Your task to perform on an android device: Search for panasonic triple a on bestbuy.com, select the first entry, and add it to the cart. Image 0: 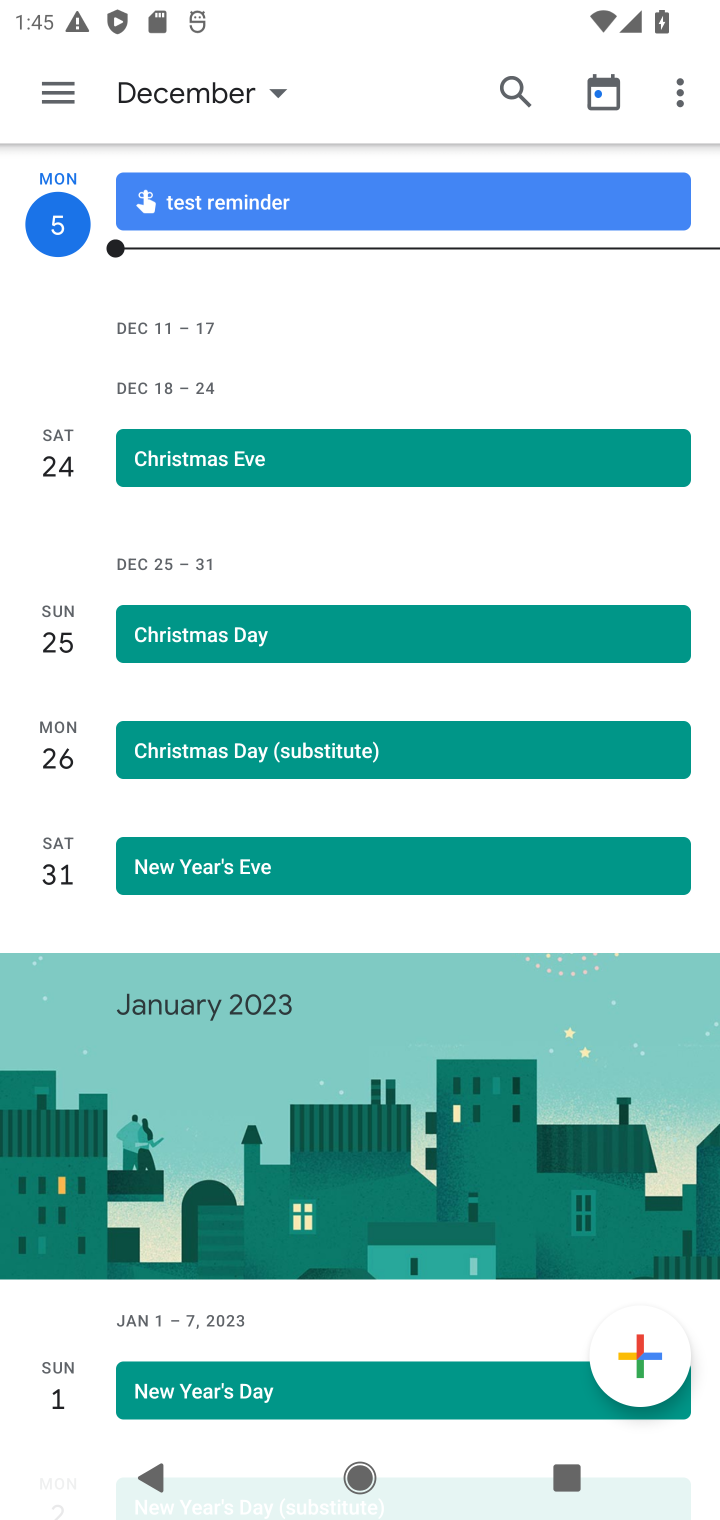
Step 0: press home button
Your task to perform on an android device: Search for panasonic triple a on bestbuy.com, select the first entry, and add it to the cart. Image 1: 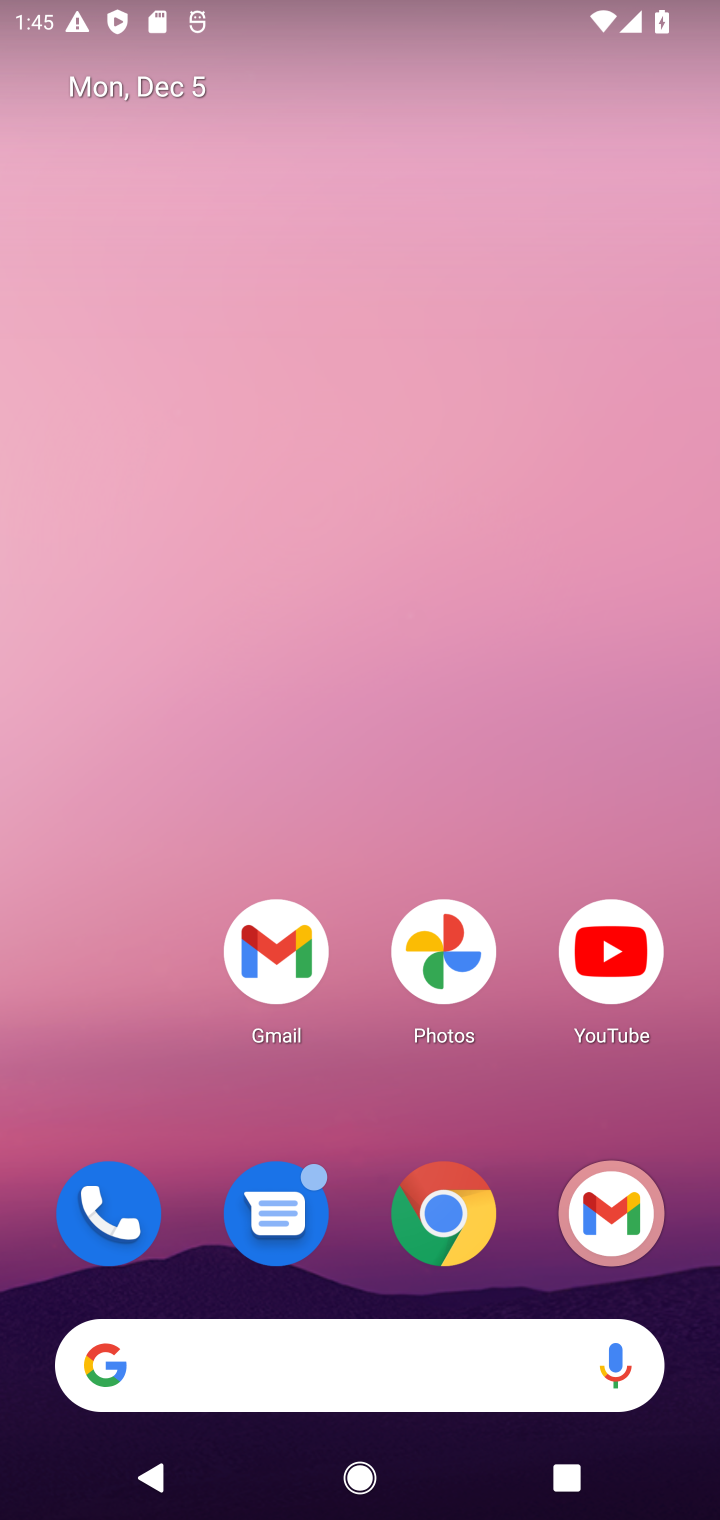
Step 1: click (438, 1215)
Your task to perform on an android device: Search for panasonic triple a on bestbuy.com, select the first entry, and add it to the cart. Image 2: 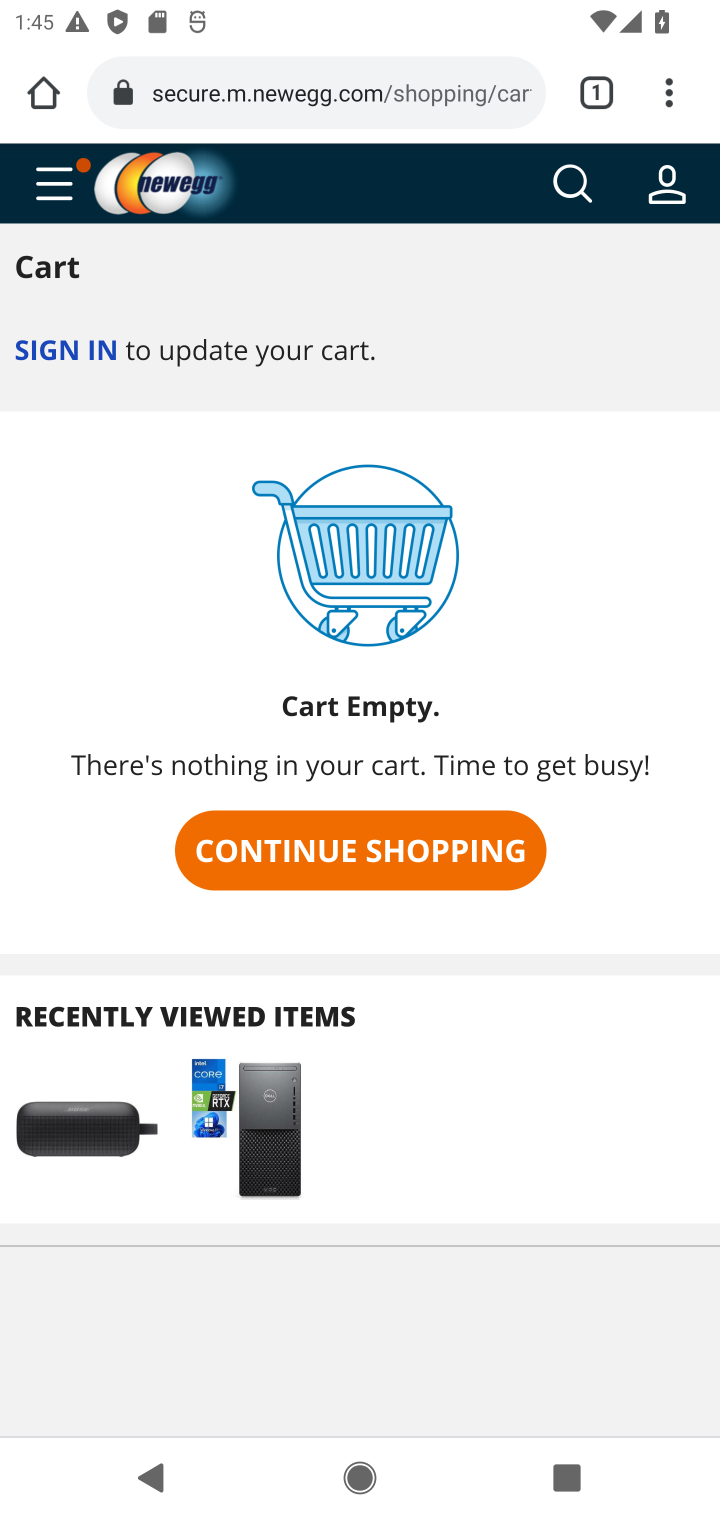
Step 2: click (296, 89)
Your task to perform on an android device: Search for panasonic triple a on bestbuy.com, select the first entry, and add it to the cart. Image 3: 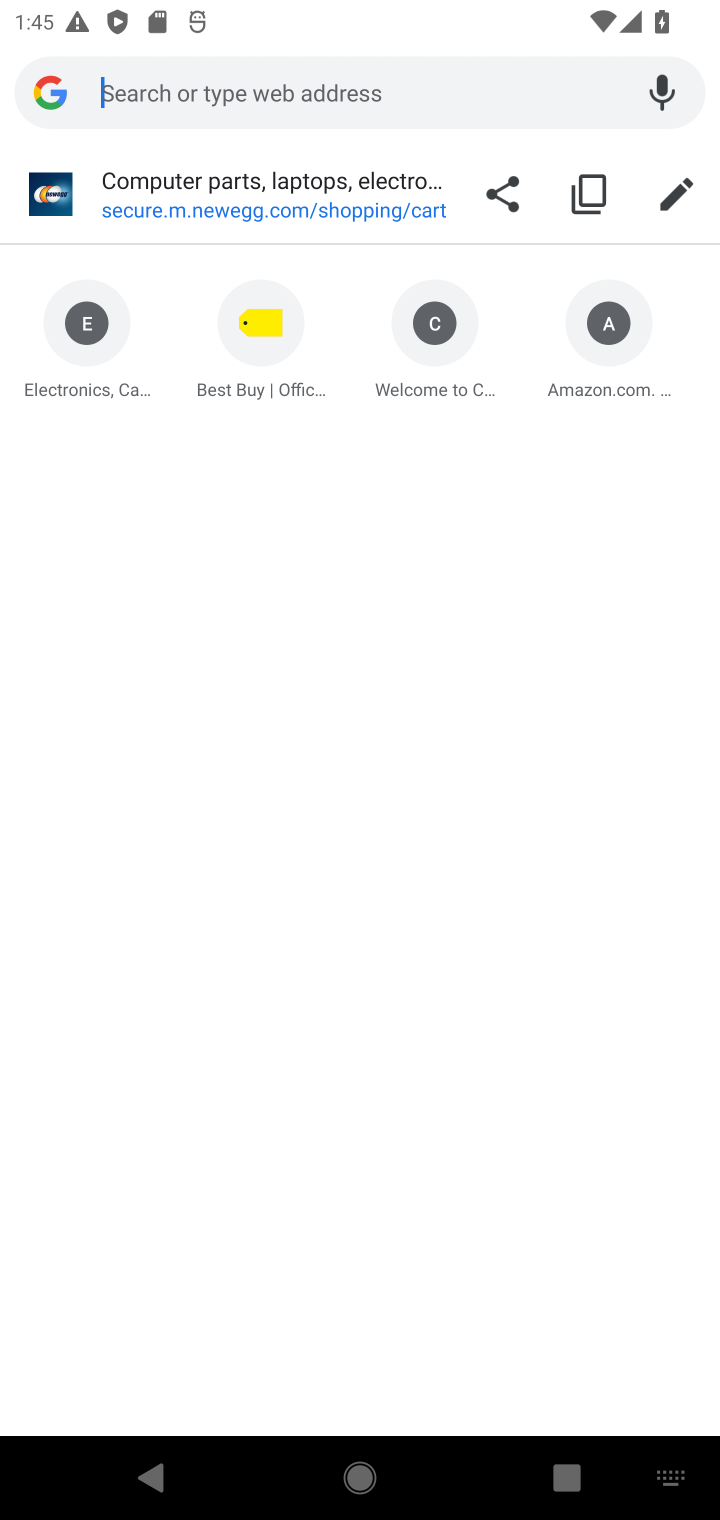
Step 3: click (247, 355)
Your task to perform on an android device: Search for panasonic triple a on bestbuy.com, select the first entry, and add it to the cart. Image 4: 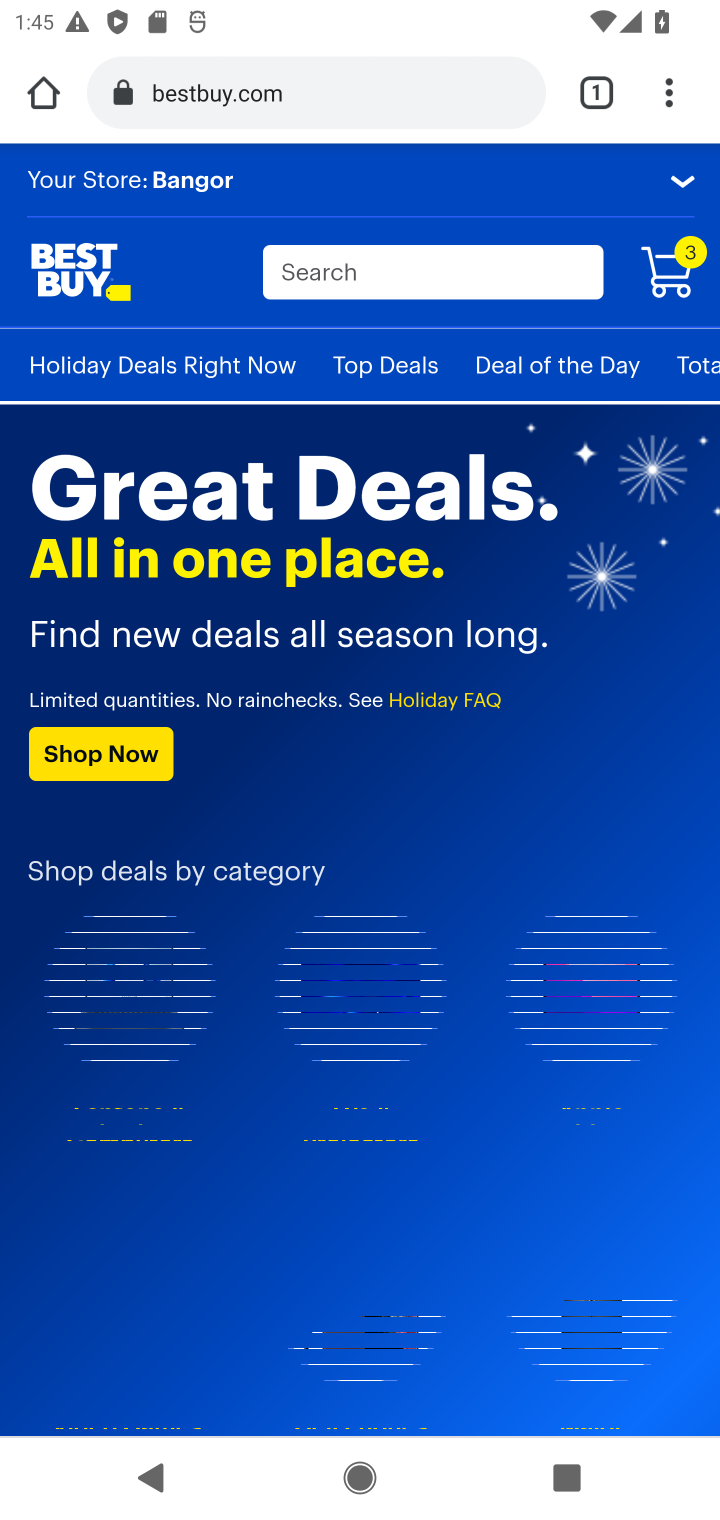
Step 4: click (380, 296)
Your task to perform on an android device: Search for panasonic triple a on bestbuy.com, select the first entry, and add it to the cart. Image 5: 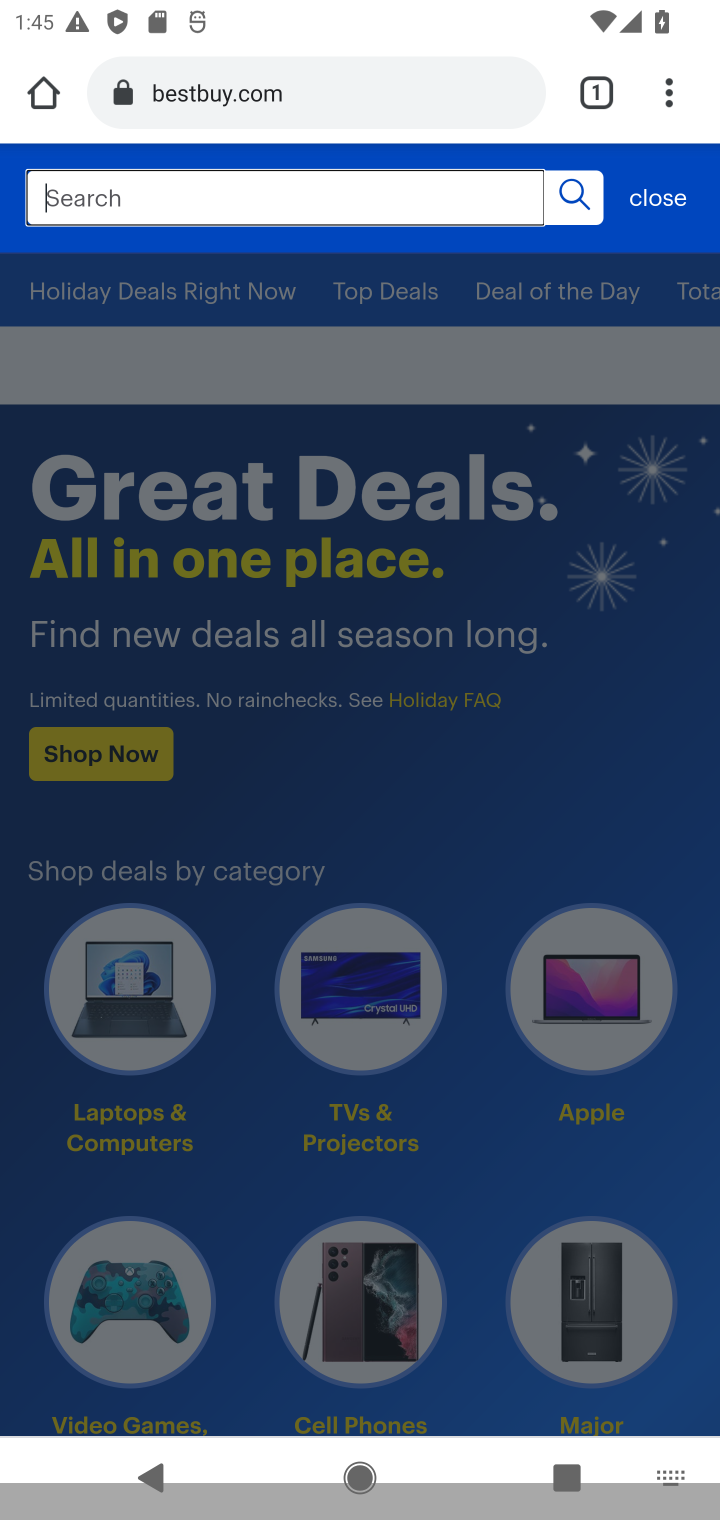
Step 5: click (380, 296)
Your task to perform on an android device: Search for panasonic triple a on bestbuy.com, select the first entry, and add it to the cart. Image 6: 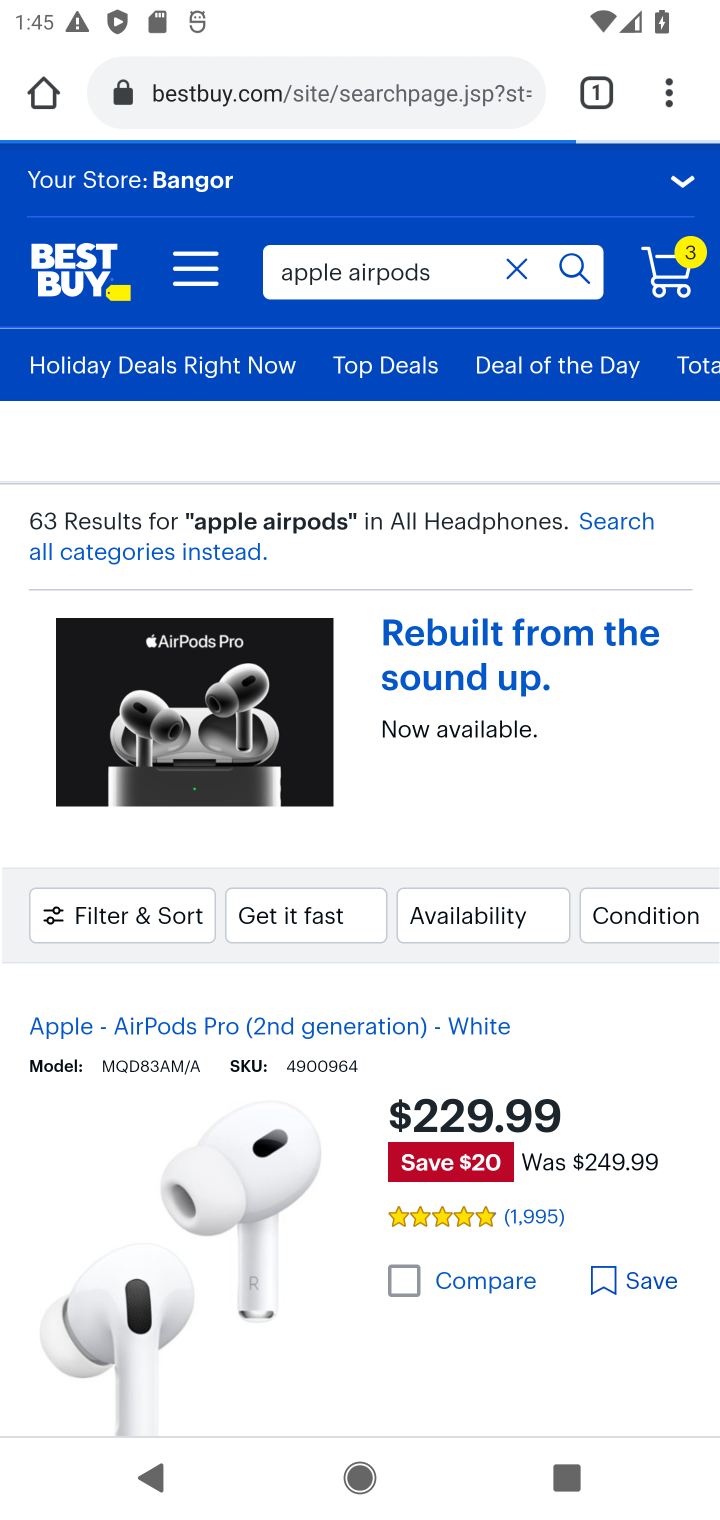
Step 6: type "panasonic triple a"
Your task to perform on an android device: Search for panasonic triple a on bestbuy.com, select the first entry, and add it to the cart. Image 7: 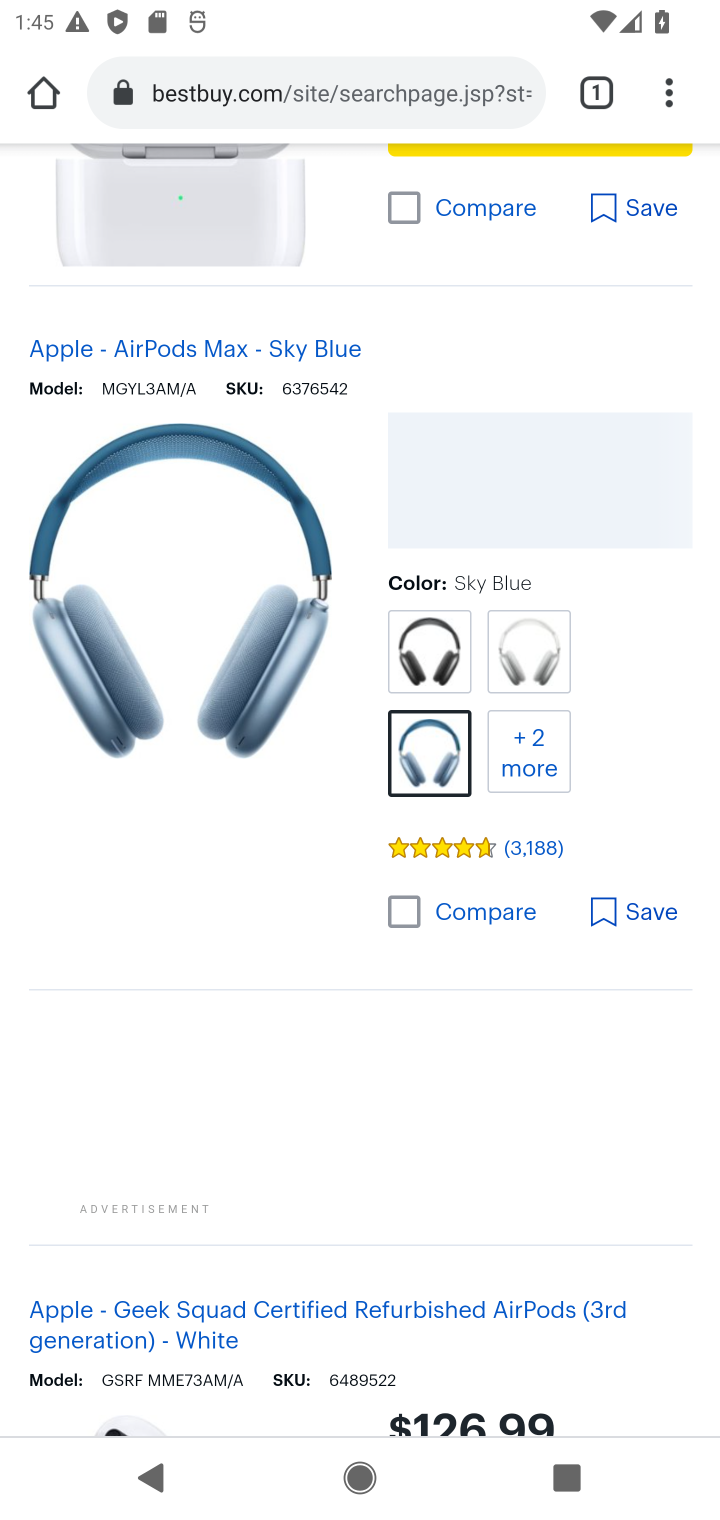
Step 7: drag from (316, 287) to (220, 1135)
Your task to perform on an android device: Search for panasonic triple a on bestbuy.com, select the first entry, and add it to the cart. Image 8: 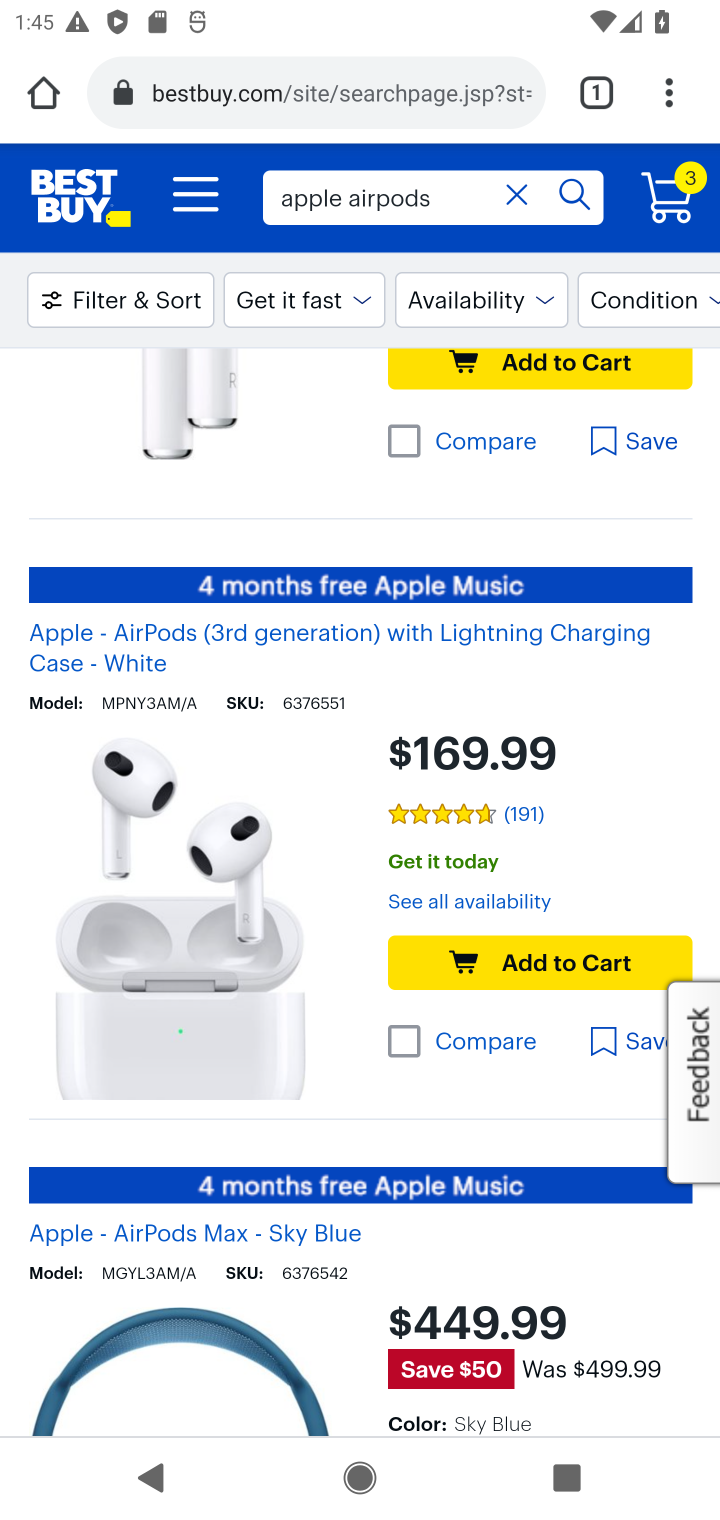
Step 8: drag from (247, 446) to (229, 668)
Your task to perform on an android device: Search for panasonic triple a on bestbuy.com, select the first entry, and add it to the cart. Image 9: 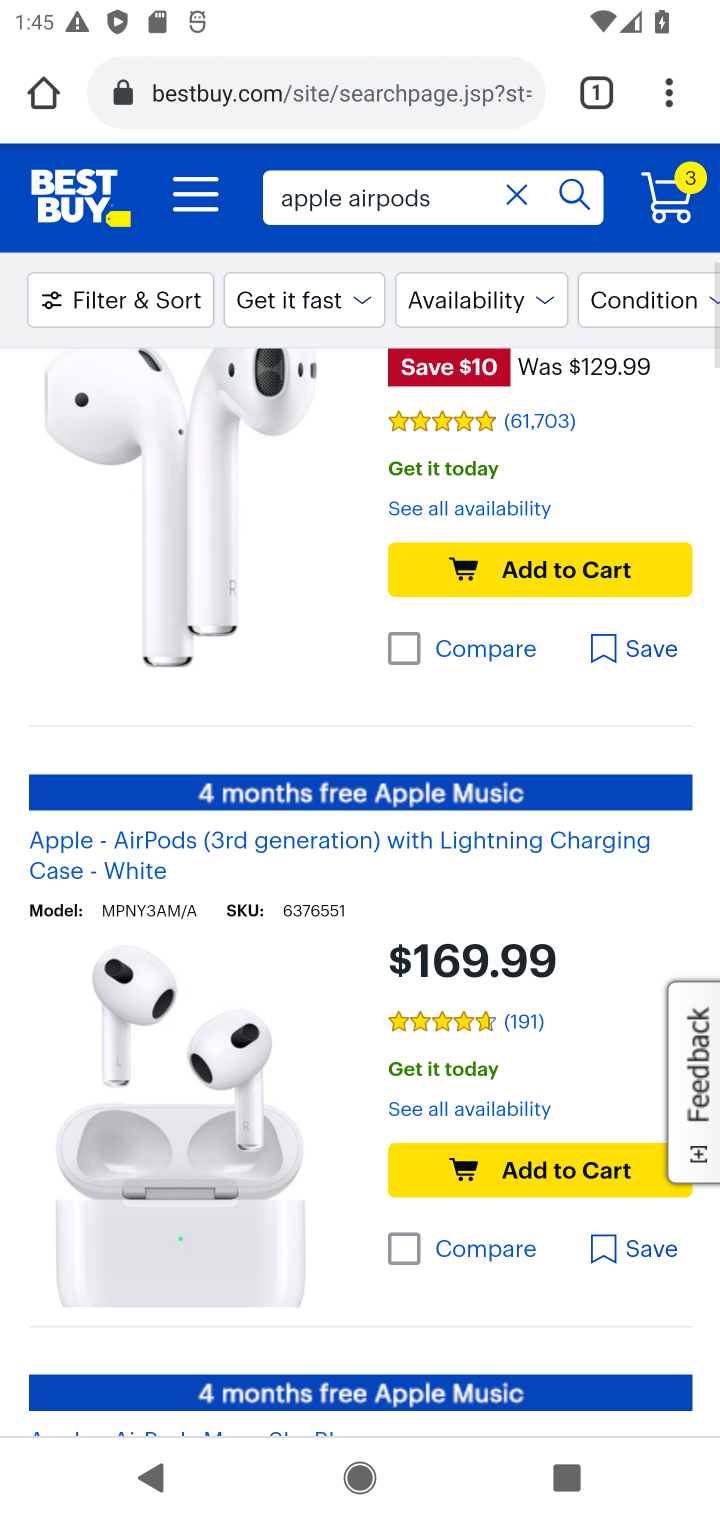
Step 9: click (520, 193)
Your task to perform on an android device: Search for panasonic triple a on bestbuy.com, select the first entry, and add it to the cart. Image 10: 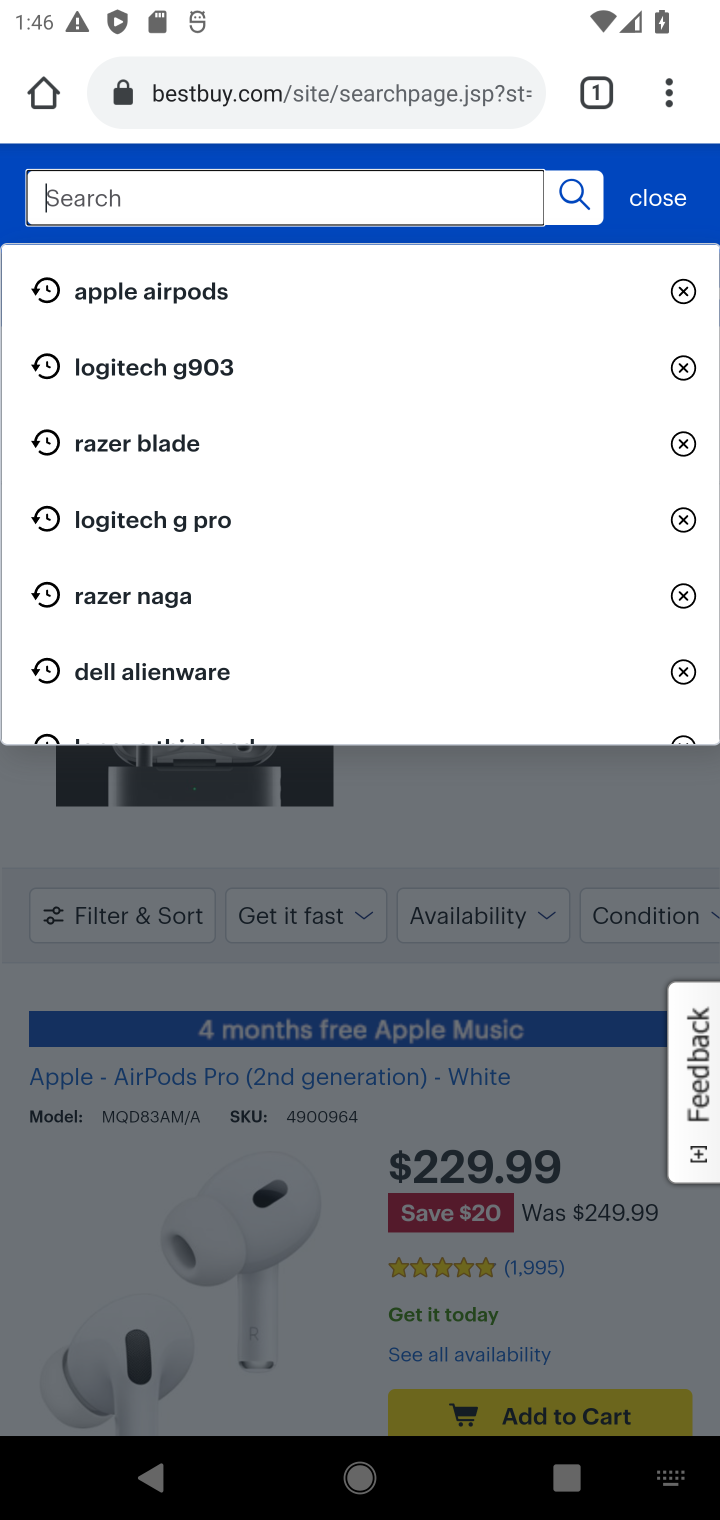
Step 10: type "panasonic triple a"
Your task to perform on an android device: Search for panasonic triple a on bestbuy.com, select the first entry, and add it to the cart. Image 11: 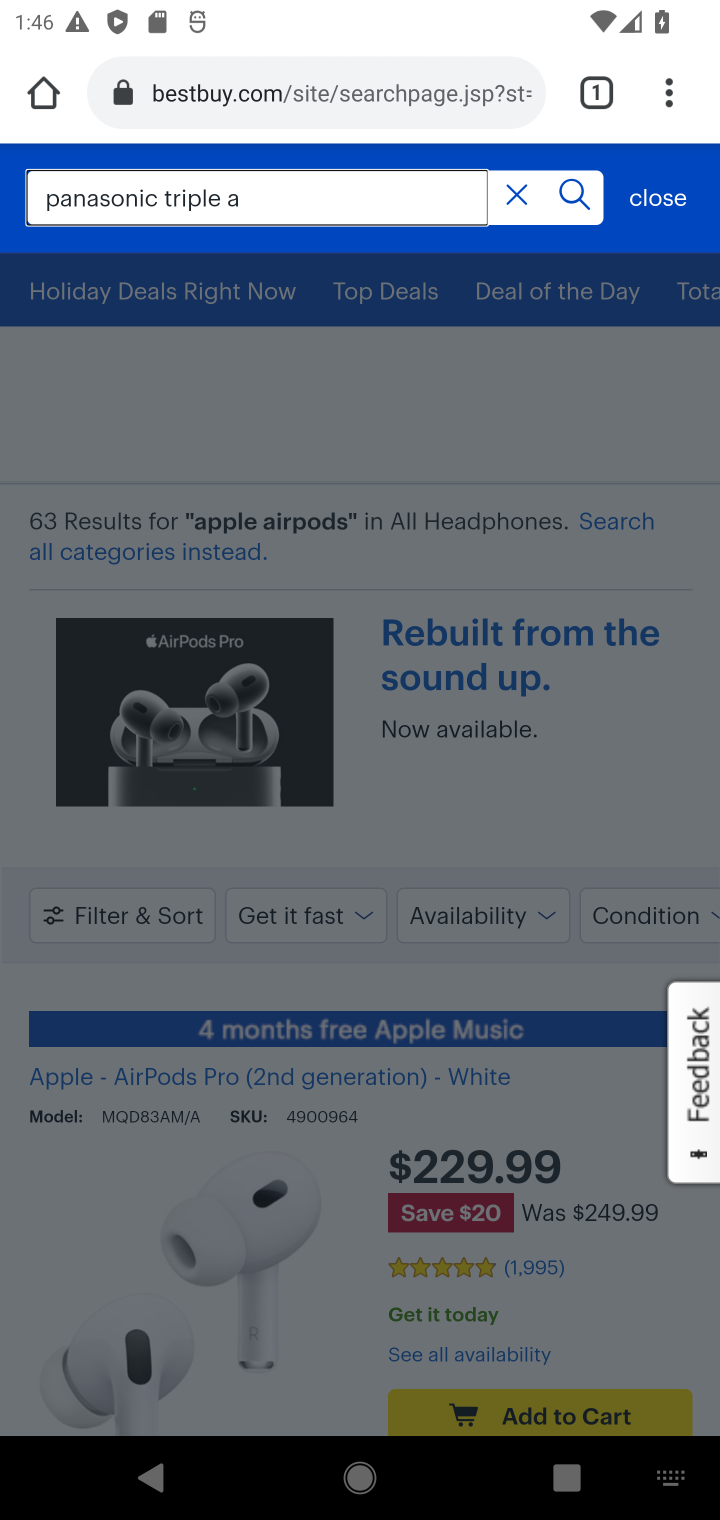
Step 11: click (573, 192)
Your task to perform on an android device: Search for panasonic triple a on bestbuy.com, select the first entry, and add it to the cart. Image 12: 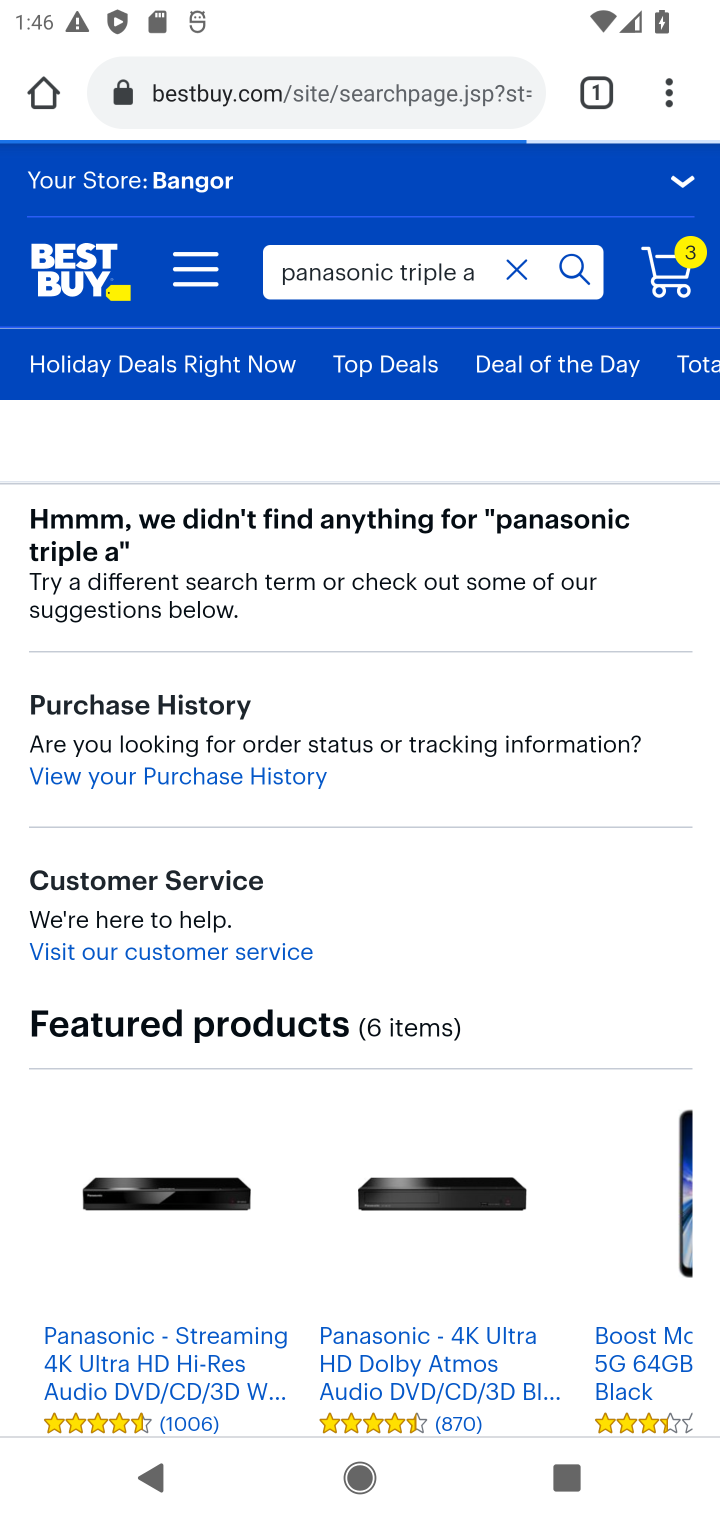
Step 12: task complete